Your task to perform on an android device: open the mobile data screen to see how much data has been used Image 0: 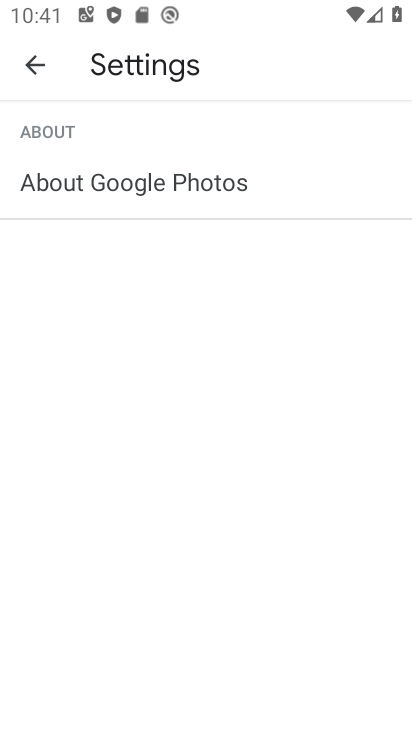
Step 0: press home button
Your task to perform on an android device: open the mobile data screen to see how much data has been used Image 1: 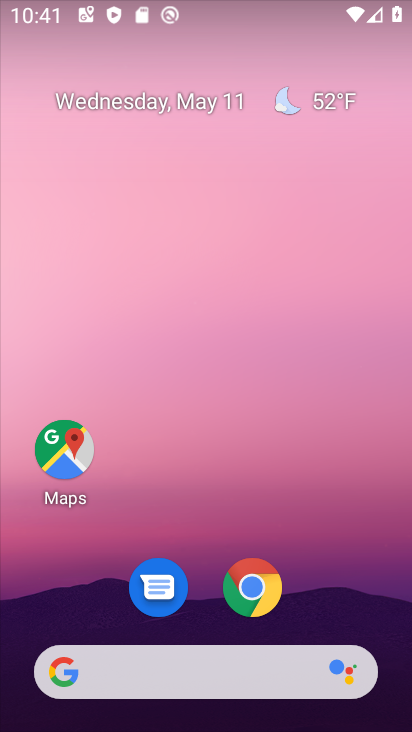
Step 1: drag from (235, 705) to (319, 212)
Your task to perform on an android device: open the mobile data screen to see how much data has been used Image 2: 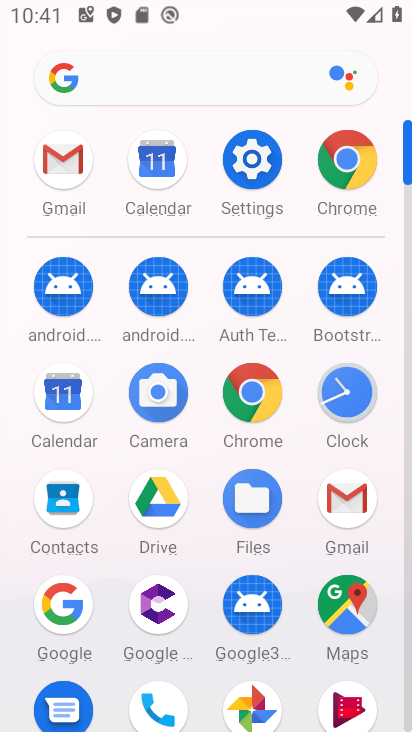
Step 2: click (256, 158)
Your task to perform on an android device: open the mobile data screen to see how much data has been used Image 3: 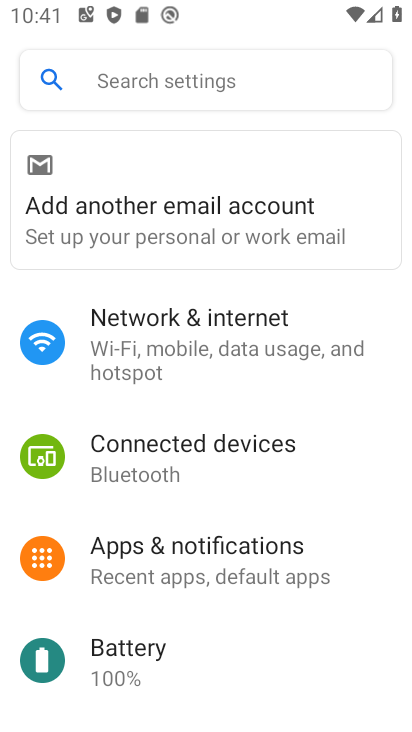
Step 3: click (192, 76)
Your task to perform on an android device: open the mobile data screen to see how much data has been used Image 4: 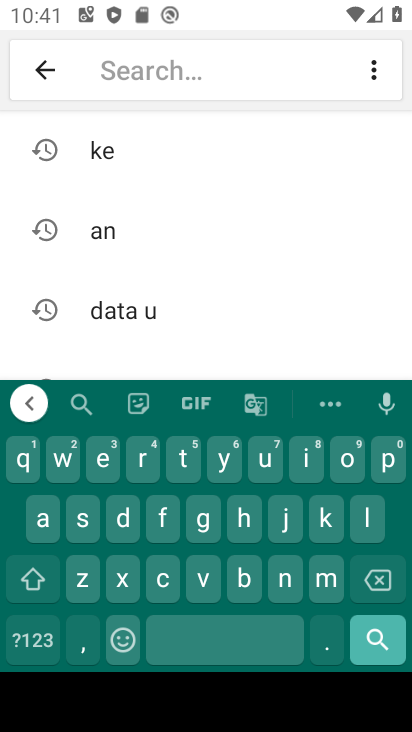
Step 4: click (131, 321)
Your task to perform on an android device: open the mobile data screen to see how much data has been used Image 5: 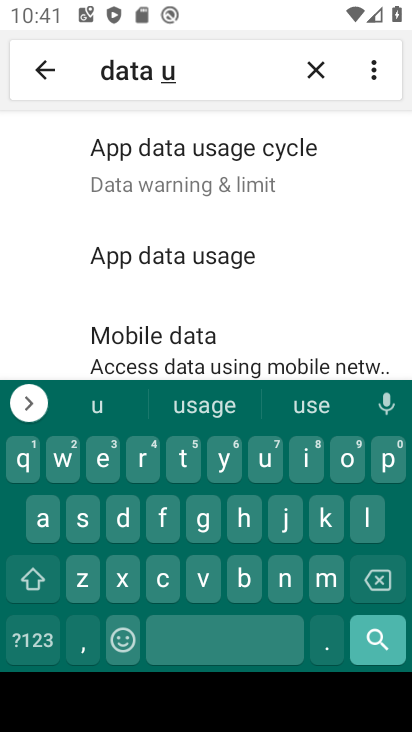
Step 5: click (173, 279)
Your task to perform on an android device: open the mobile data screen to see how much data has been used Image 6: 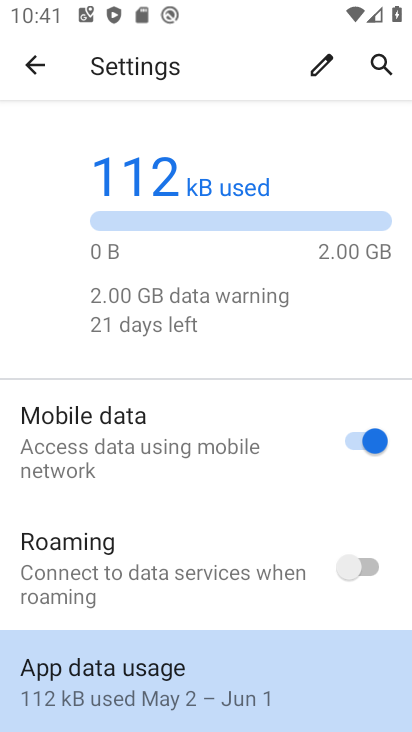
Step 6: click (165, 697)
Your task to perform on an android device: open the mobile data screen to see how much data has been used Image 7: 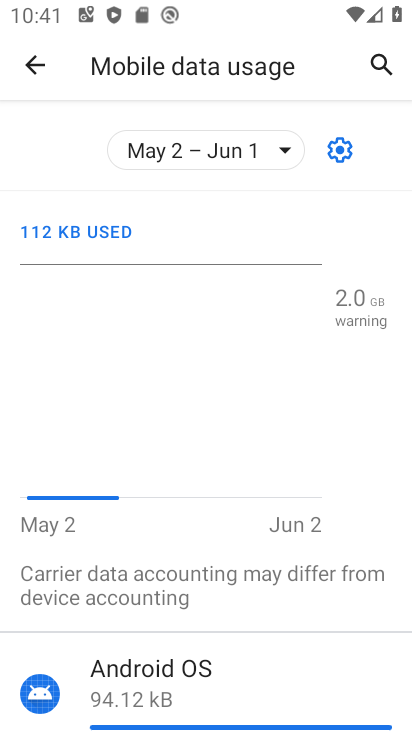
Step 7: task complete